Your task to perform on an android device: Open the Play Movies app and select the watchlist tab. Image 0: 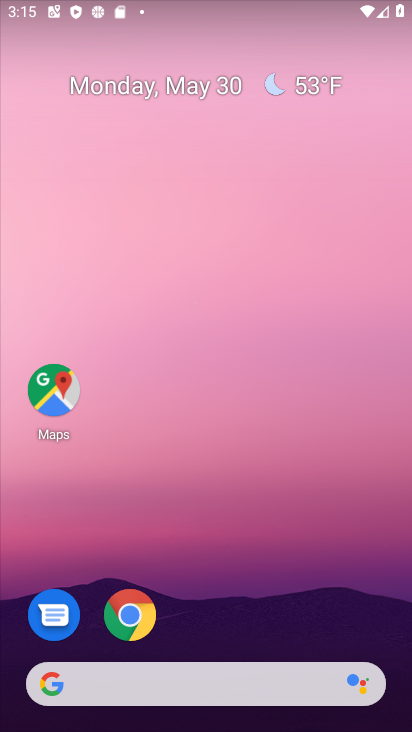
Step 0: drag from (303, 542) to (301, 265)
Your task to perform on an android device: Open the Play Movies app and select the watchlist tab. Image 1: 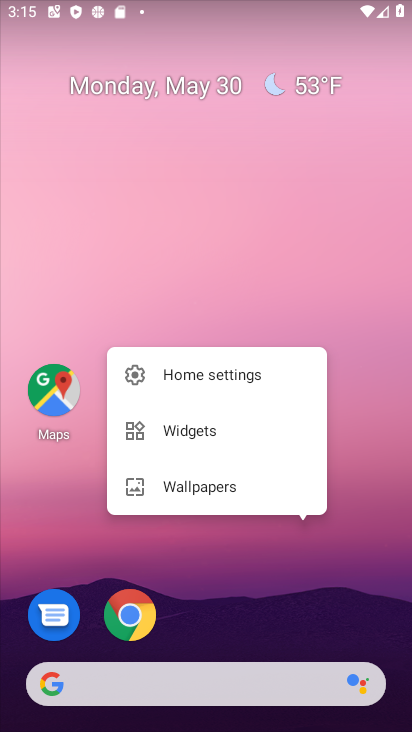
Step 1: drag from (357, 575) to (367, 166)
Your task to perform on an android device: Open the Play Movies app and select the watchlist tab. Image 2: 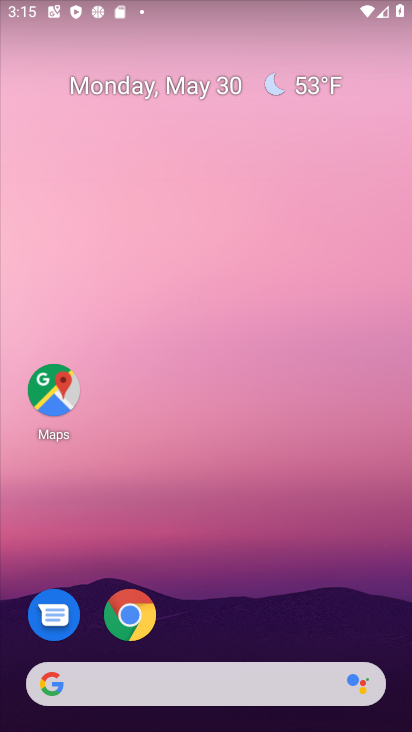
Step 2: drag from (303, 616) to (322, 69)
Your task to perform on an android device: Open the Play Movies app and select the watchlist tab. Image 3: 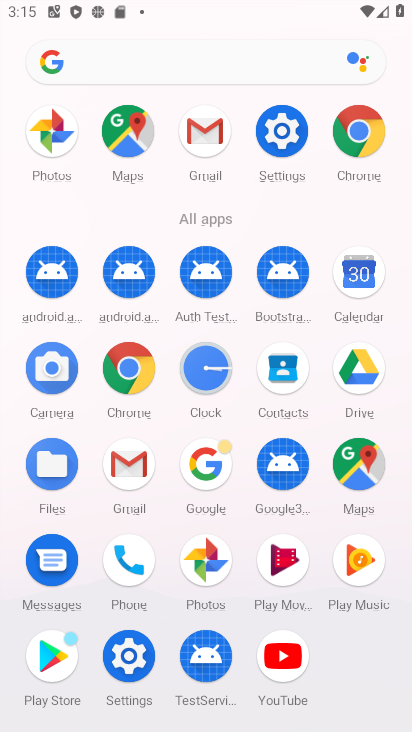
Step 3: click (275, 569)
Your task to perform on an android device: Open the Play Movies app and select the watchlist tab. Image 4: 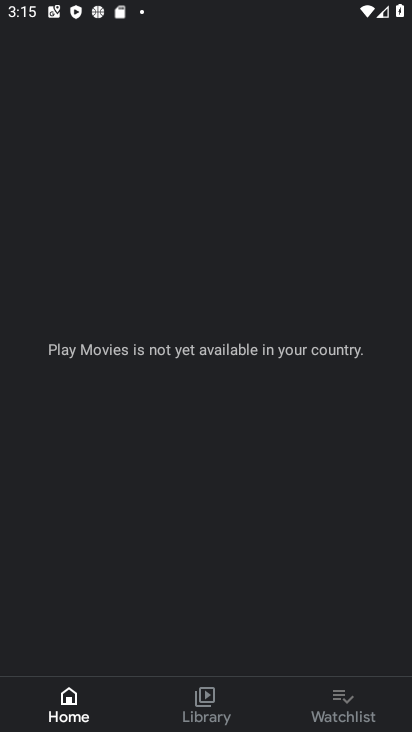
Step 4: click (341, 721)
Your task to perform on an android device: Open the Play Movies app and select the watchlist tab. Image 5: 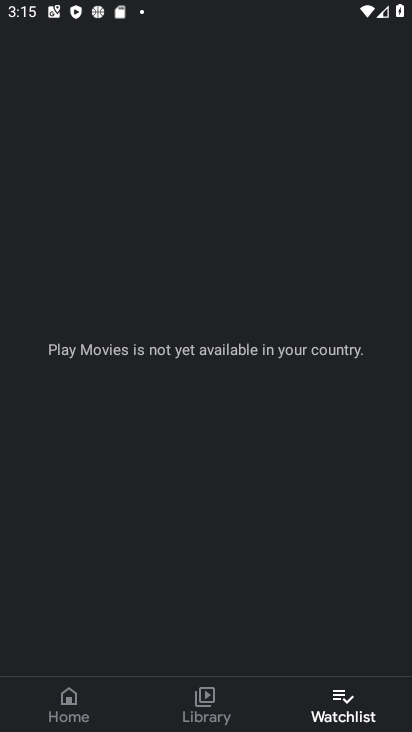
Step 5: task complete